Your task to perform on an android device: Go to eBay Image 0: 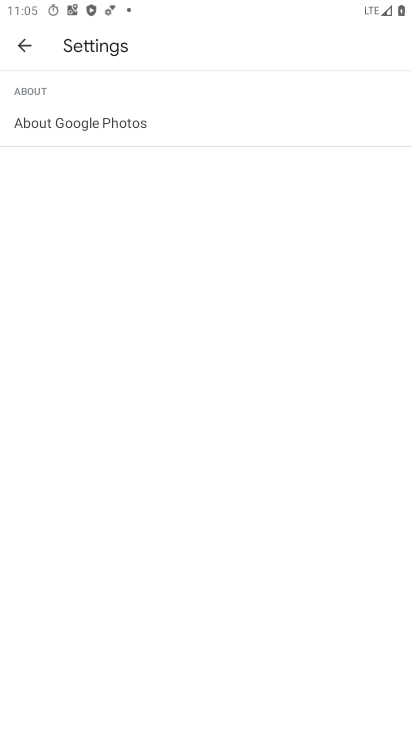
Step 0: press back button
Your task to perform on an android device: Go to eBay Image 1: 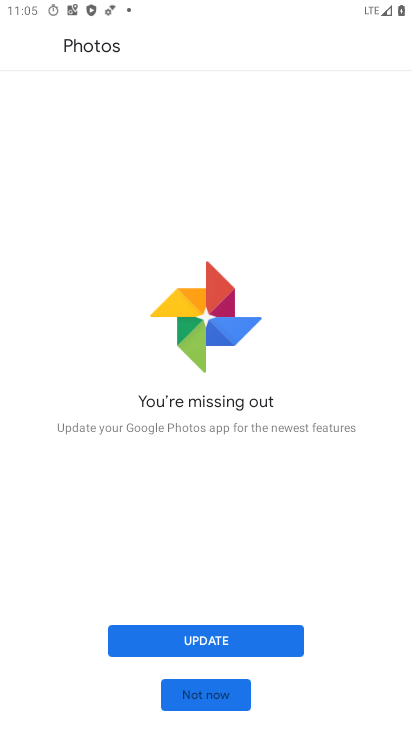
Step 1: press back button
Your task to perform on an android device: Go to eBay Image 2: 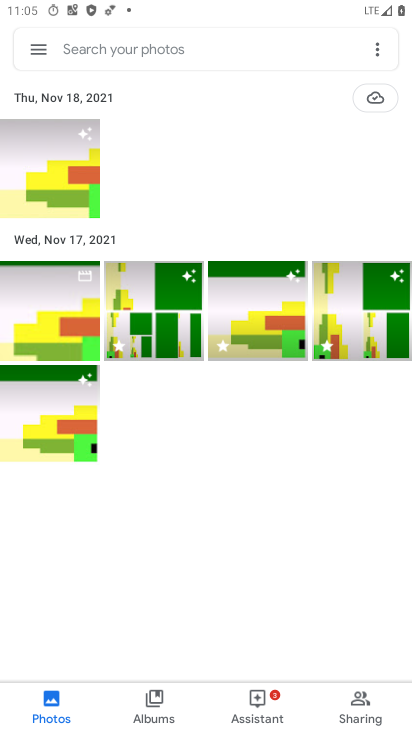
Step 2: press back button
Your task to perform on an android device: Go to eBay Image 3: 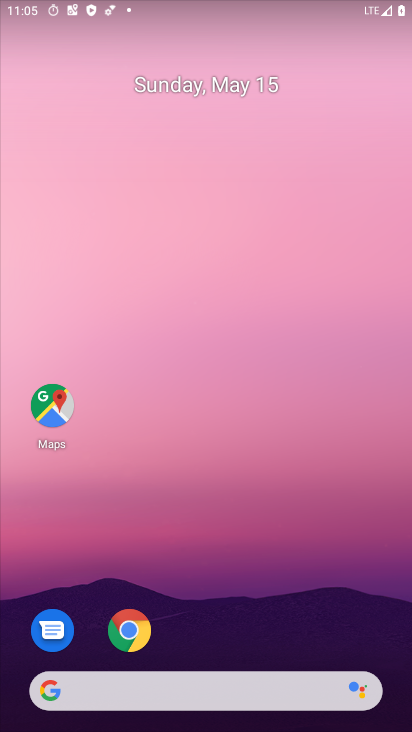
Step 3: click (123, 622)
Your task to perform on an android device: Go to eBay Image 4: 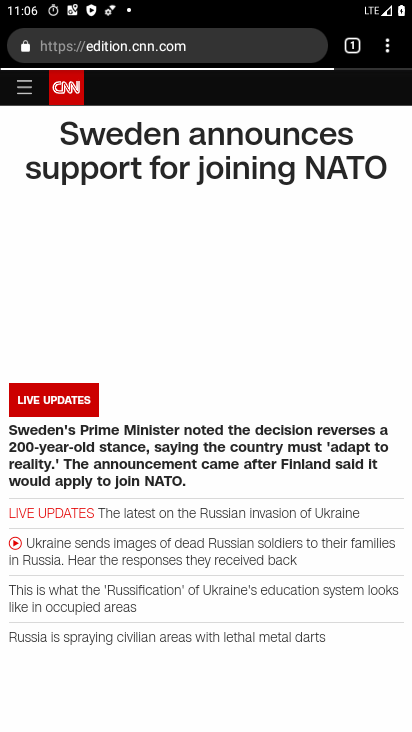
Step 4: click (349, 44)
Your task to perform on an android device: Go to eBay Image 5: 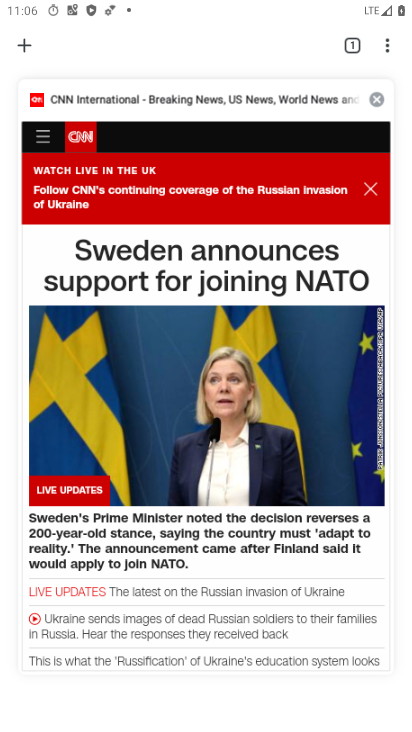
Step 5: click (32, 47)
Your task to perform on an android device: Go to eBay Image 6: 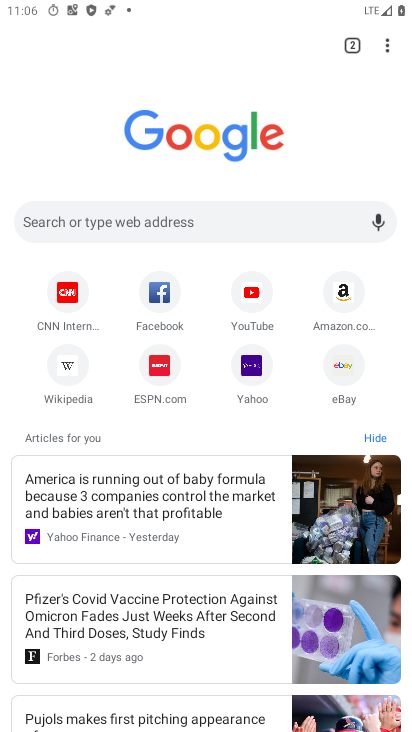
Step 6: click (138, 223)
Your task to perform on an android device: Go to eBay Image 7: 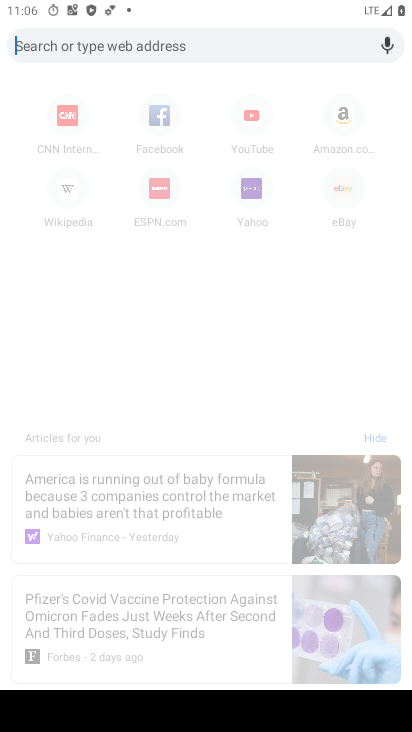
Step 7: type "ebay"
Your task to perform on an android device: Go to eBay Image 8: 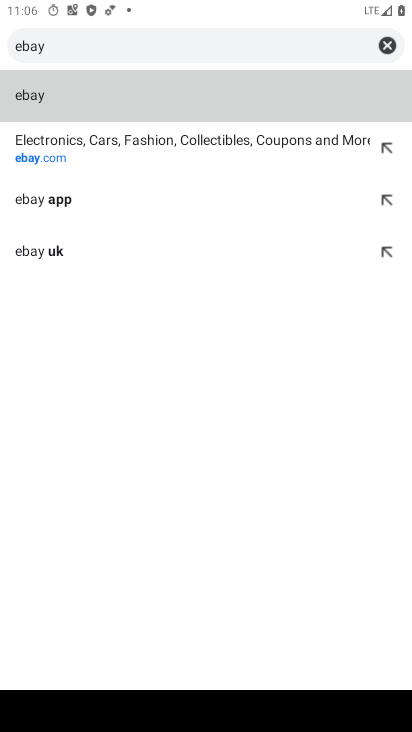
Step 8: click (110, 140)
Your task to perform on an android device: Go to eBay Image 9: 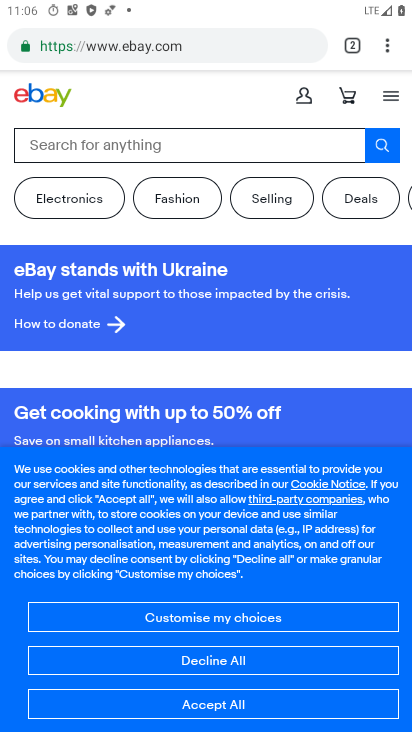
Step 9: task complete